Your task to perform on an android device: Open accessibility settings Image 0: 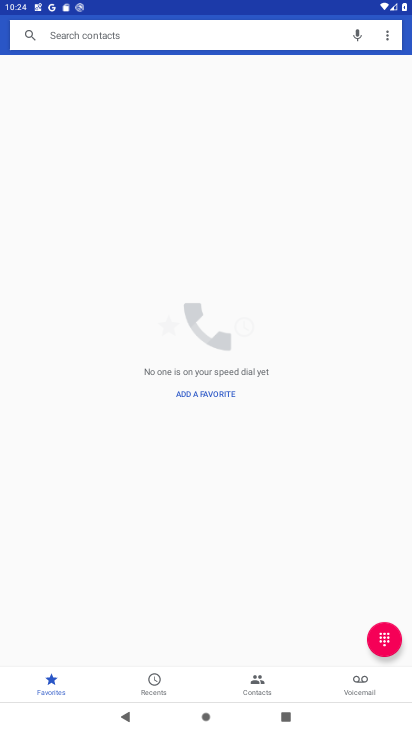
Step 0: press home button
Your task to perform on an android device: Open accessibility settings Image 1: 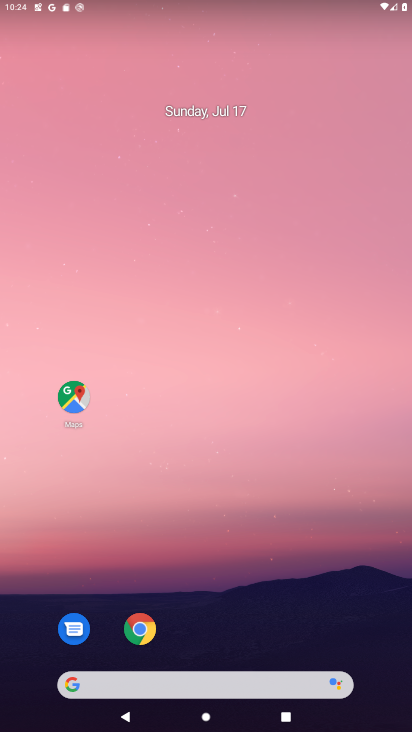
Step 1: drag from (210, 686) to (332, 228)
Your task to perform on an android device: Open accessibility settings Image 2: 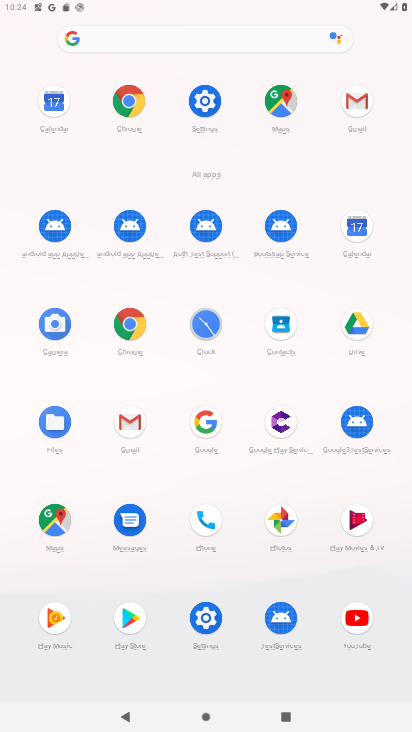
Step 2: click (206, 100)
Your task to perform on an android device: Open accessibility settings Image 3: 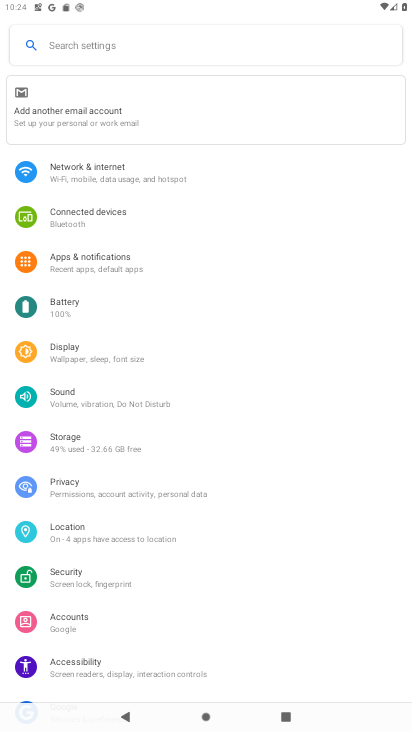
Step 3: click (58, 663)
Your task to perform on an android device: Open accessibility settings Image 4: 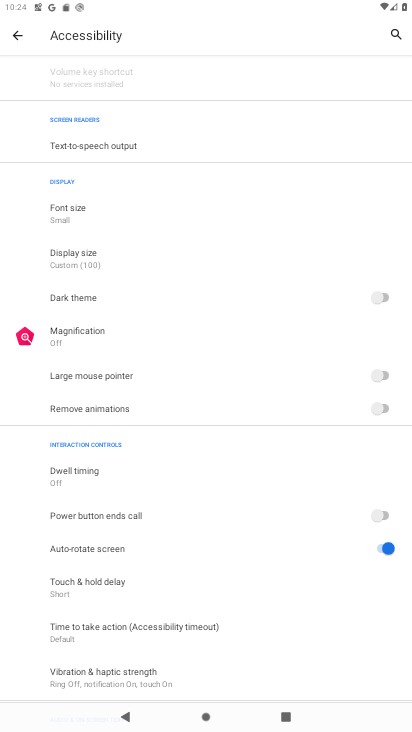
Step 4: task complete